Your task to perform on an android device: all mails in gmail Image 0: 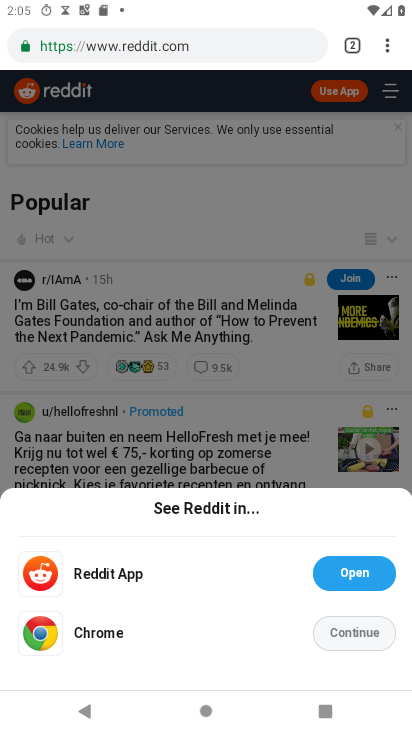
Step 0: press home button
Your task to perform on an android device: all mails in gmail Image 1: 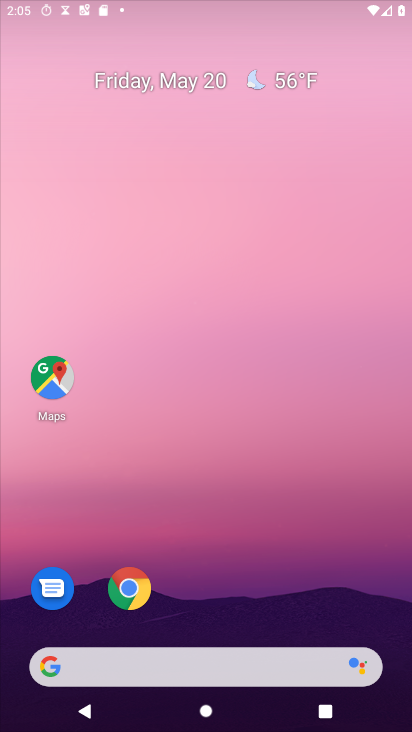
Step 1: drag from (25, 574) to (237, 111)
Your task to perform on an android device: all mails in gmail Image 2: 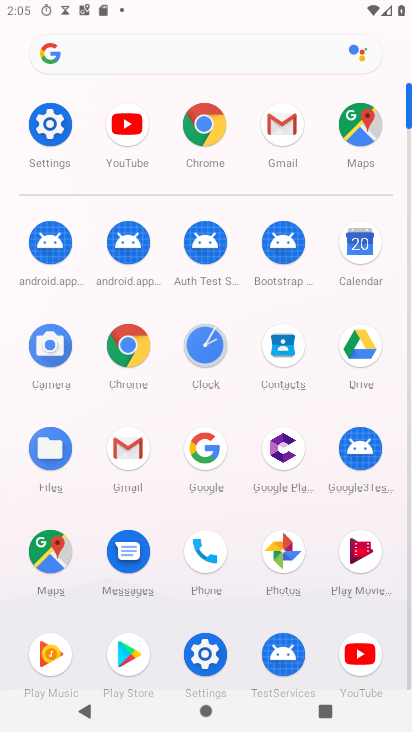
Step 2: click (130, 445)
Your task to perform on an android device: all mails in gmail Image 3: 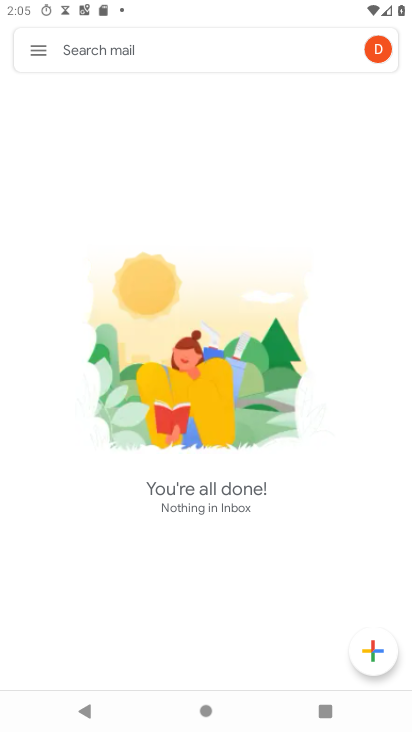
Step 3: click (40, 43)
Your task to perform on an android device: all mails in gmail Image 4: 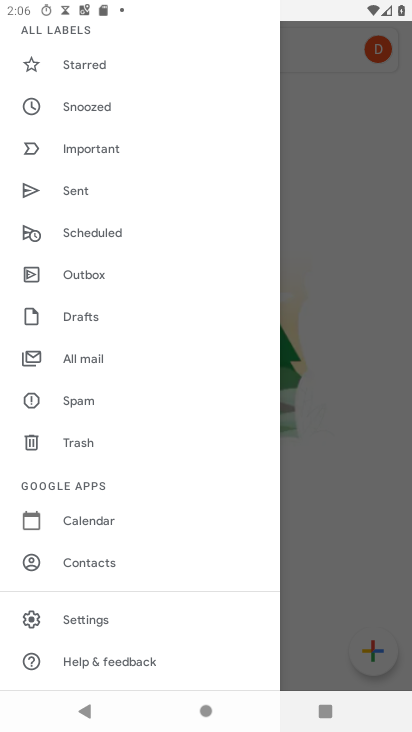
Step 4: click (81, 360)
Your task to perform on an android device: all mails in gmail Image 5: 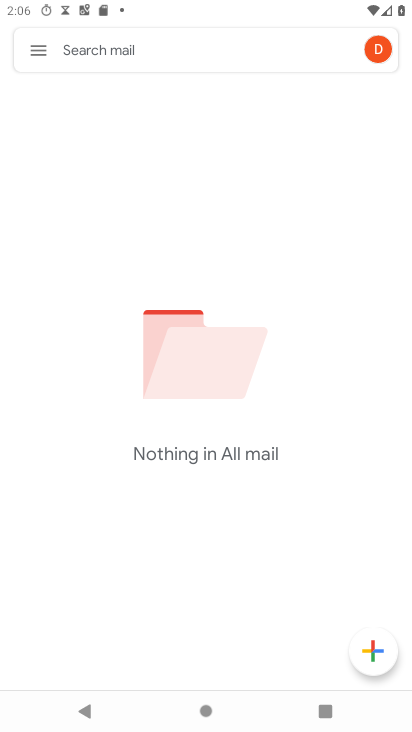
Step 5: task complete